Your task to perform on an android device: Open calendar and show me the second week of next month Image 0: 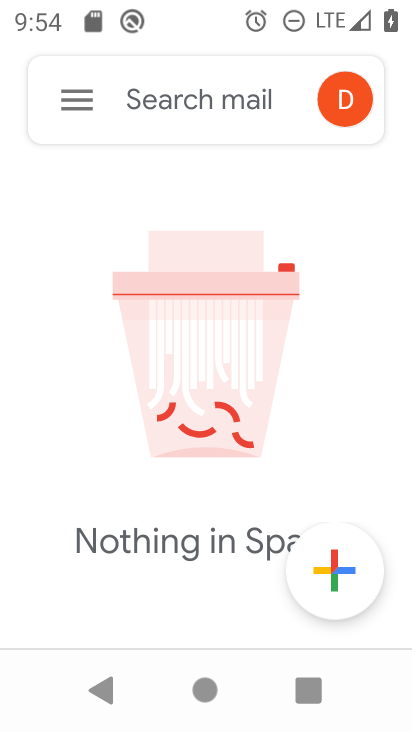
Step 0: press home button
Your task to perform on an android device: Open calendar and show me the second week of next month Image 1: 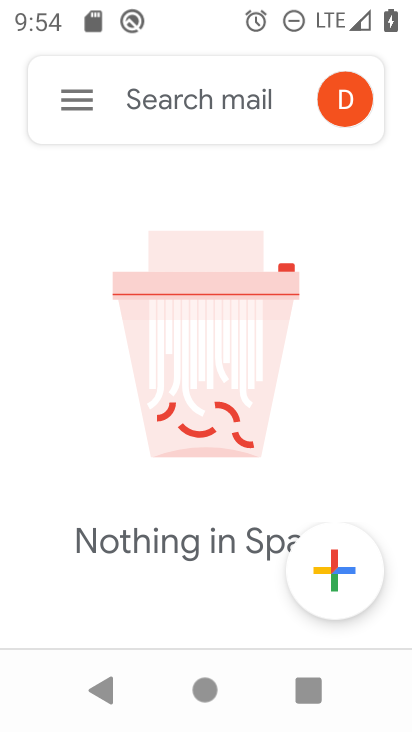
Step 1: press home button
Your task to perform on an android device: Open calendar and show me the second week of next month Image 2: 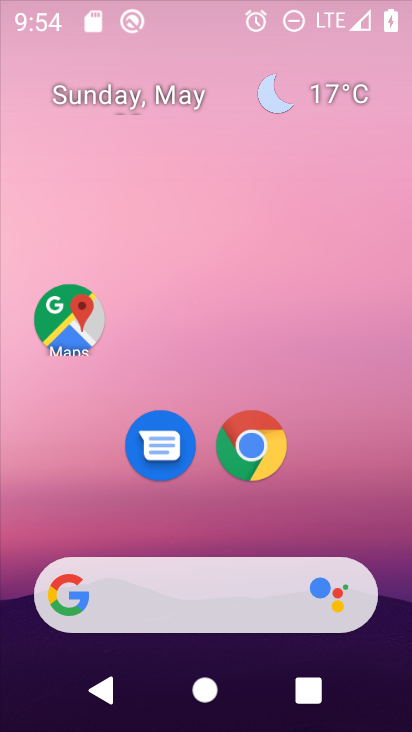
Step 2: drag from (198, 582) to (302, 119)
Your task to perform on an android device: Open calendar and show me the second week of next month Image 3: 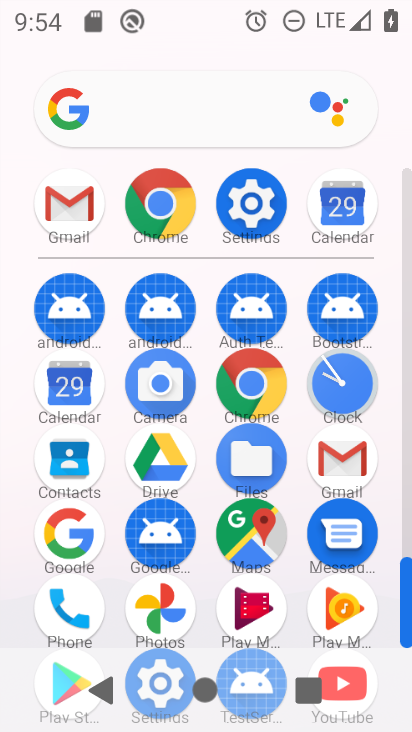
Step 3: click (70, 412)
Your task to perform on an android device: Open calendar and show me the second week of next month Image 4: 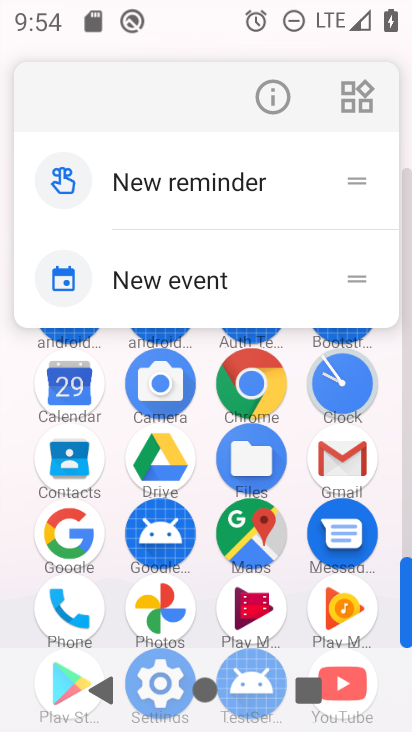
Step 4: click (277, 98)
Your task to perform on an android device: Open calendar and show me the second week of next month Image 5: 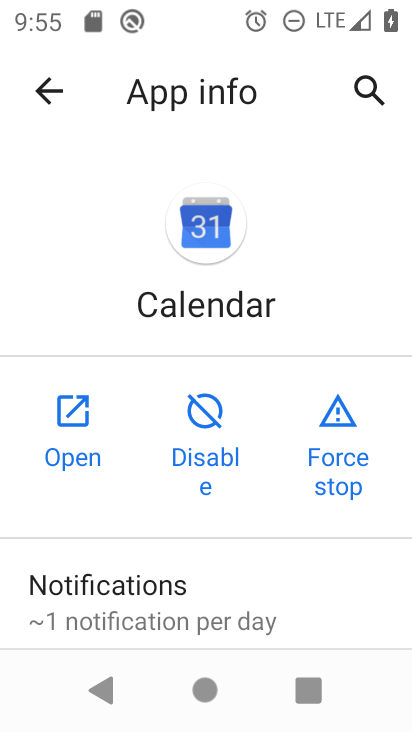
Step 5: click (74, 411)
Your task to perform on an android device: Open calendar and show me the second week of next month Image 6: 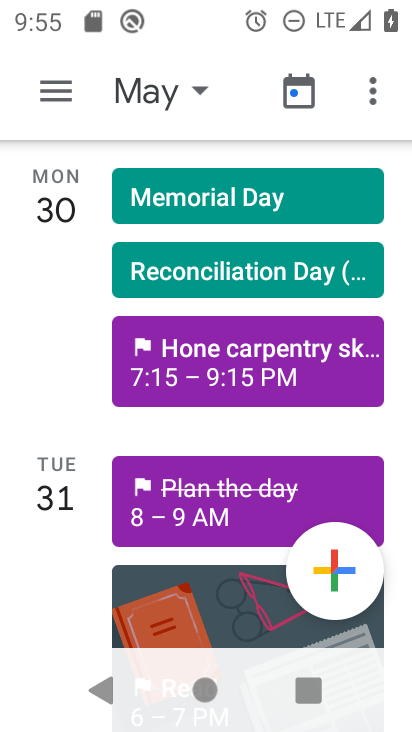
Step 6: click (149, 92)
Your task to perform on an android device: Open calendar and show me the second week of next month Image 7: 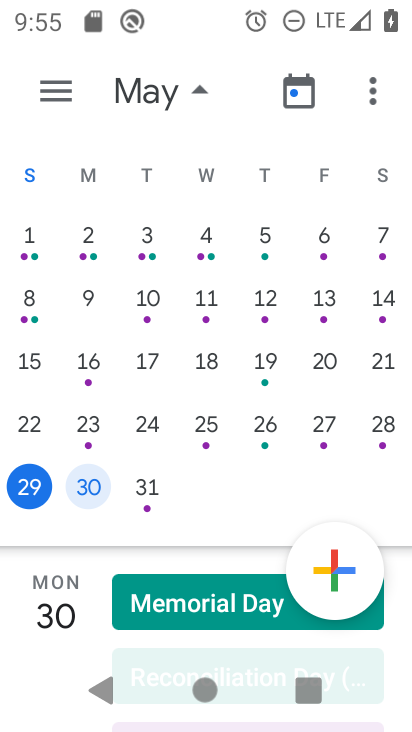
Step 7: drag from (286, 397) to (11, 320)
Your task to perform on an android device: Open calendar and show me the second week of next month Image 8: 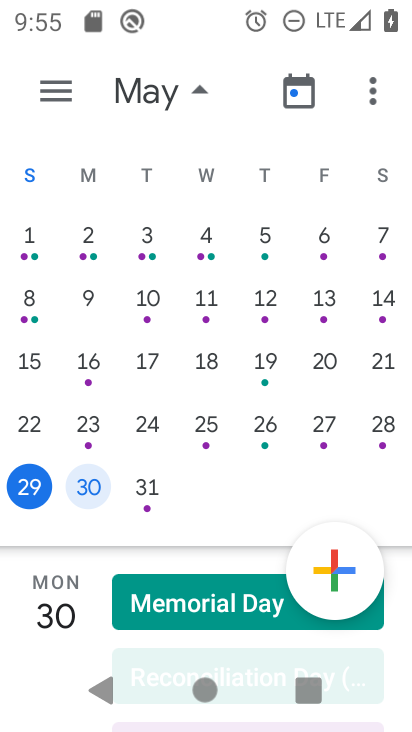
Step 8: drag from (368, 353) to (8, 192)
Your task to perform on an android device: Open calendar and show me the second week of next month Image 9: 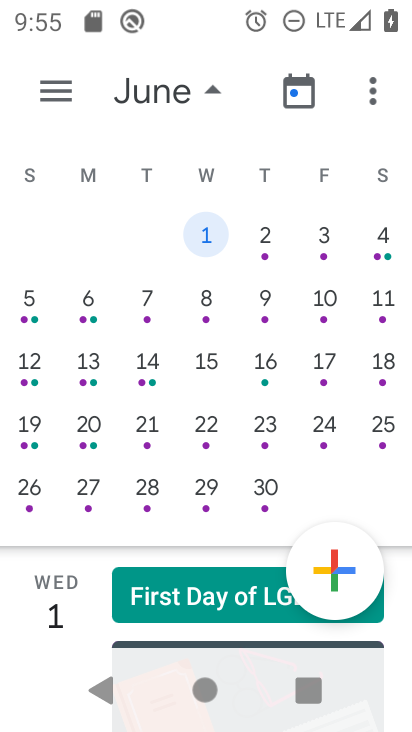
Step 9: drag from (389, 388) to (228, 345)
Your task to perform on an android device: Open calendar and show me the second week of next month Image 10: 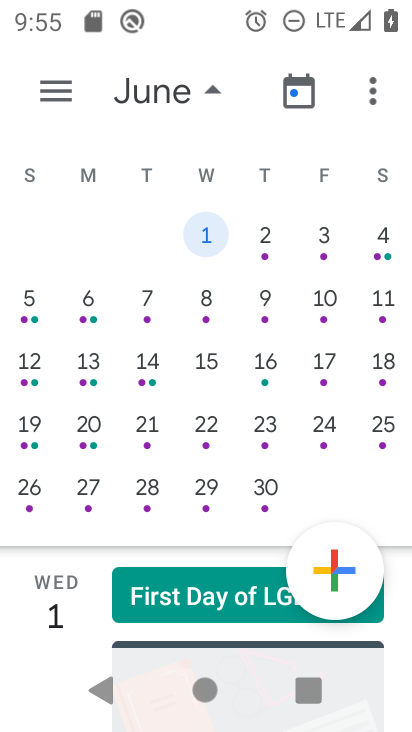
Step 10: click (215, 305)
Your task to perform on an android device: Open calendar and show me the second week of next month Image 11: 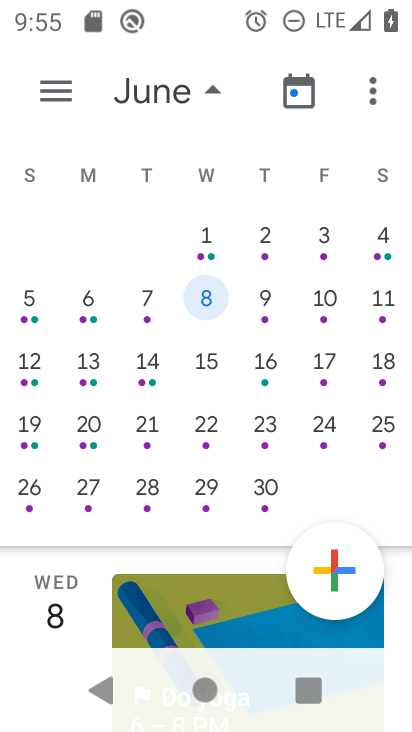
Step 11: task complete